Your task to perform on an android device: find snoozed emails in the gmail app Image 0: 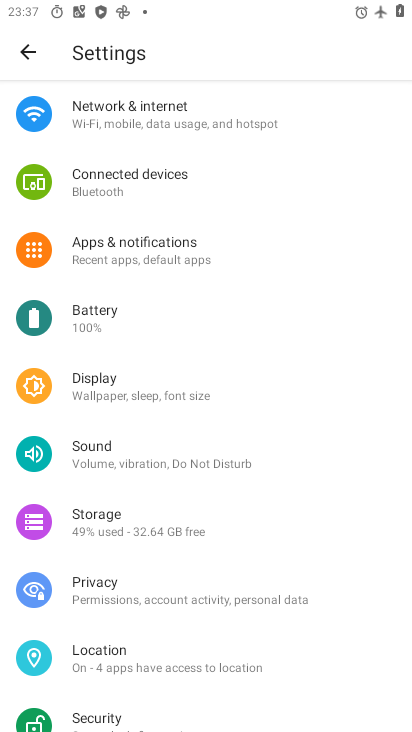
Step 0: press home button
Your task to perform on an android device: find snoozed emails in the gmail app Image 1: 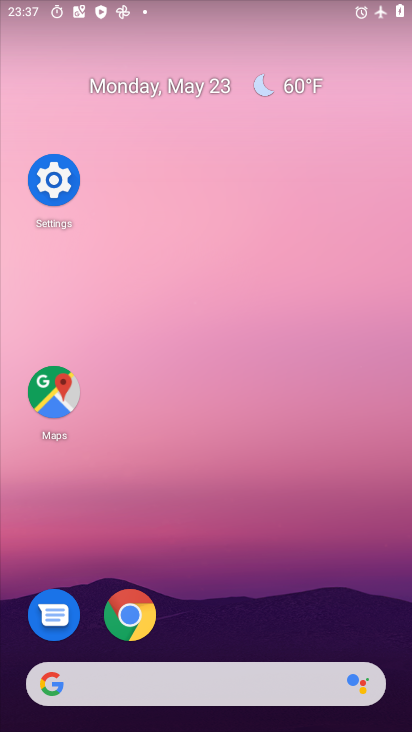
Step 1: drag from (269, 605) to (324, 123)
Your task to perform on an android device: find snoozed emails in the gmail app Image 2: 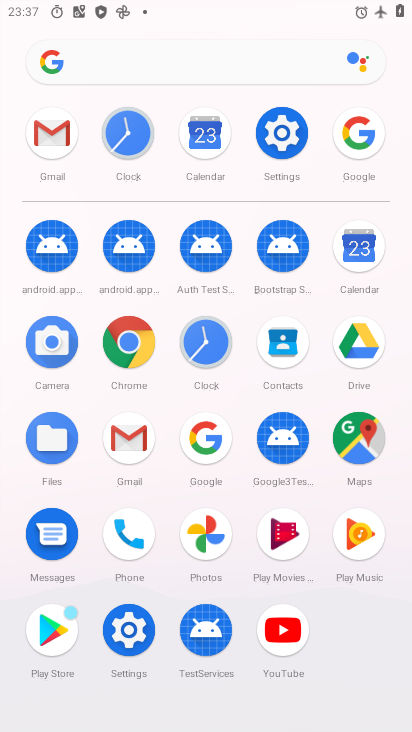
Step 2: click (141, 435)
Your task to perform on an android device: find snoozed emails in the gmail app Image 3: 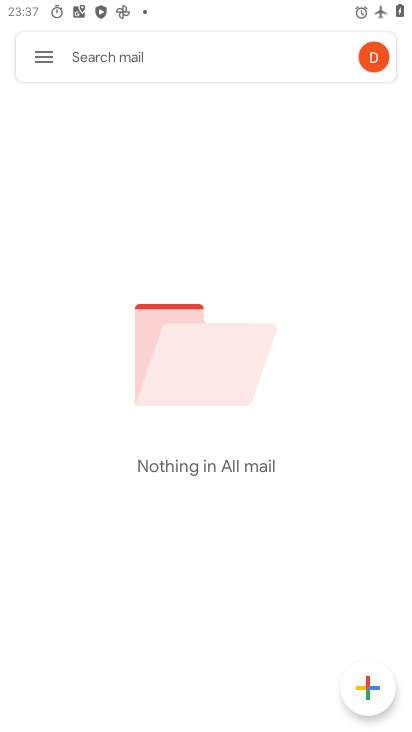
Step 3: click (45, 37)
Your task to perform on an android device: find snoozed emails in the gmail app Image 4: 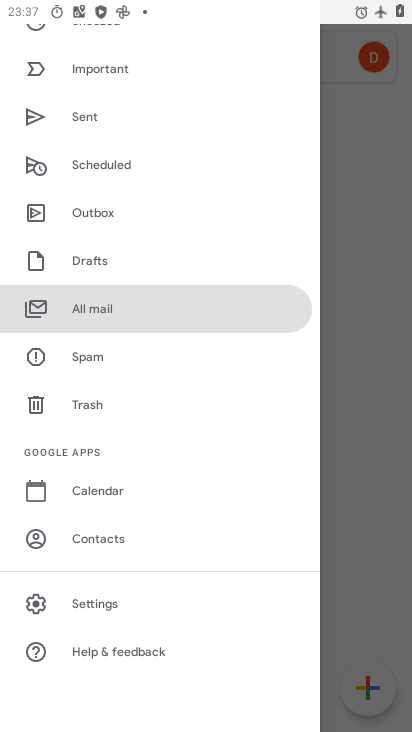
Step 4: drag from (150, 235) to (168, 466)
Your task to perform on an android device: find snoozed emails in the gmail app Image 5: 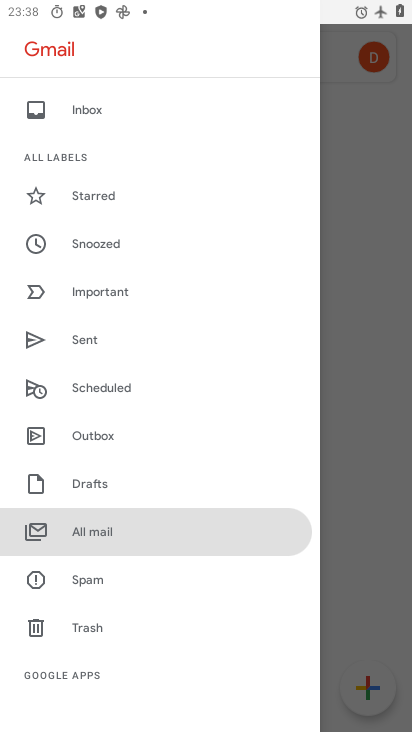
Step 5: click (113, 251)
Your task to perform on an android device: find snoozed emails in the gmail app Image 6: 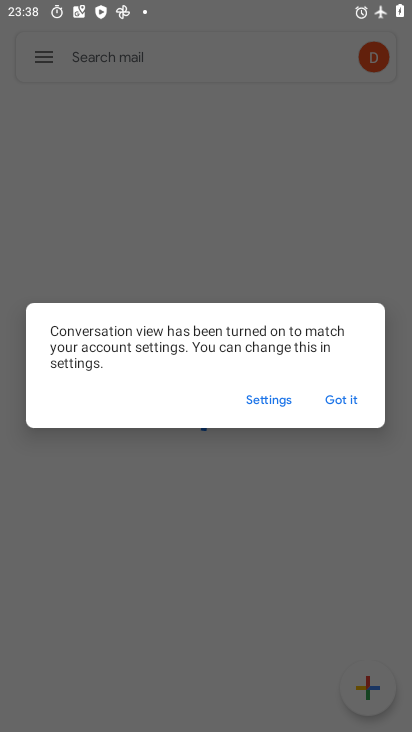
Step 6: click (338, 391)
Your task to perform on an android device: find snoozed emails in the gmail app Image 7: 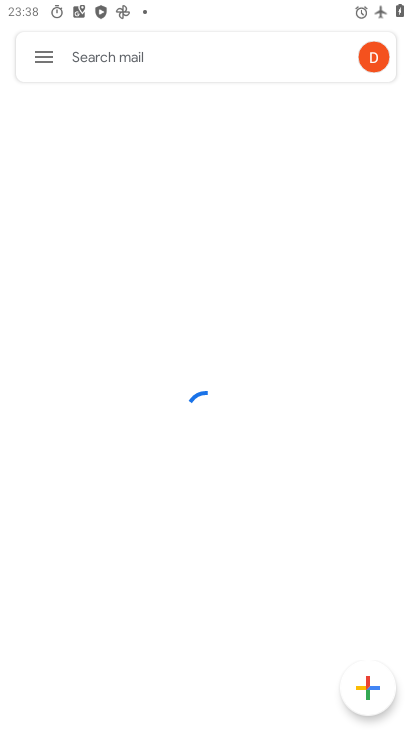
Step 7: task complete